Your task to perform on an android device: find snoozed emails in the gmail app Image 0: 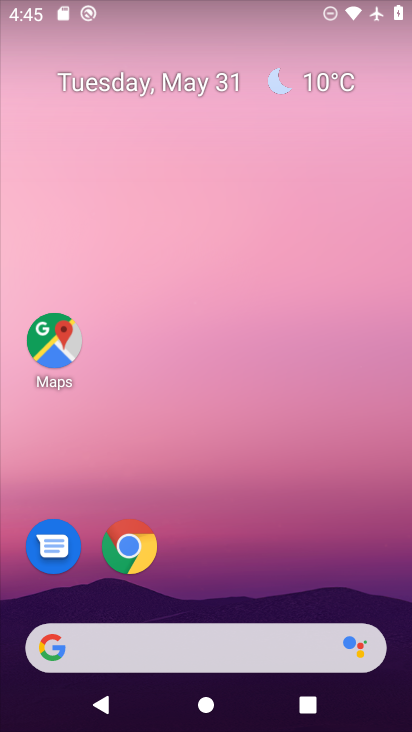
Step 0: press home button
Your task to perform on an android device: find snoozed emails in the gmail app Image 1: 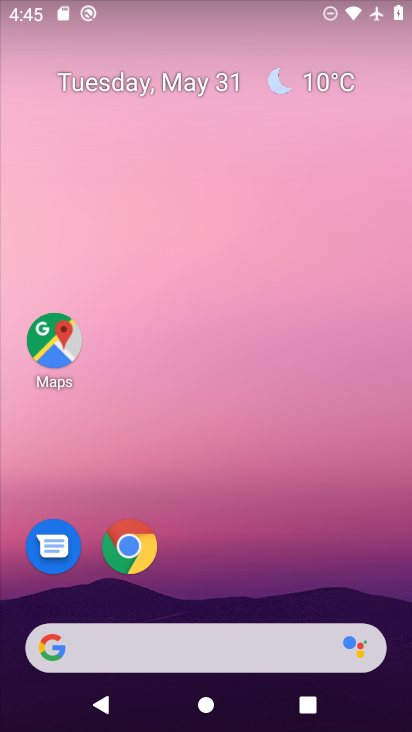
Step 1: drag from (262, 520) to (184, 0)
Your task to perform on an android device: find snoozed emails in the gmail app Image 2: 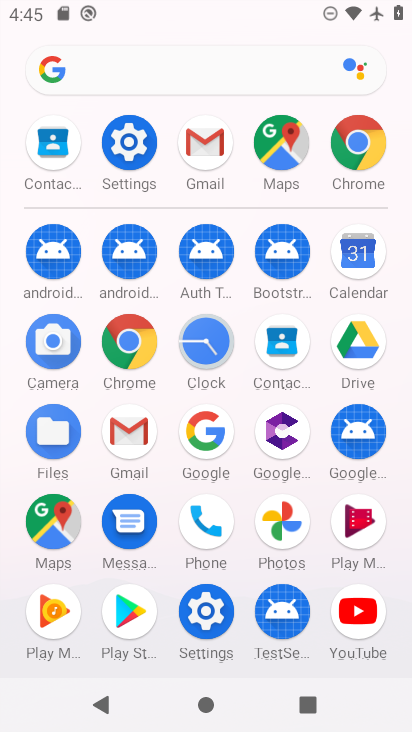
Step 2: click (208, 135)
Your task to perform on an android device: find snoozed emails in the gmail app Image 3: 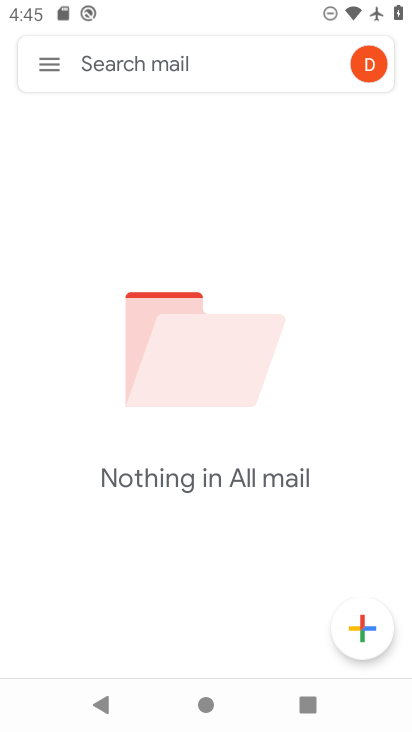
Step 3: click (38, 70)
Your task to perform on an android device: find snoozed emails in the gmail app Image 4: 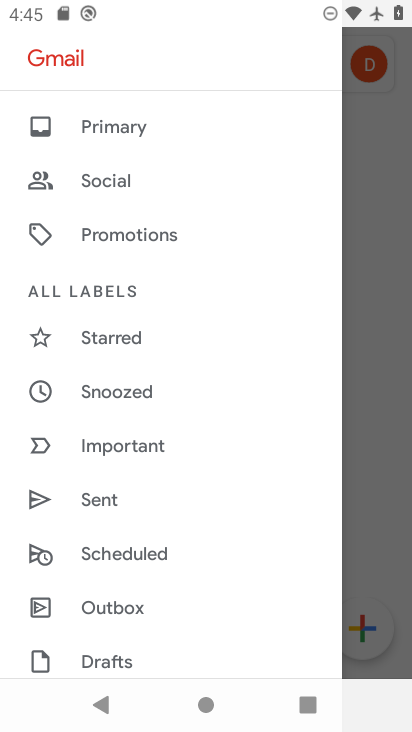
Step 4: click (132, 388)
Your task to perform on an android device: find snoozed emails in the gmail app Image 5: 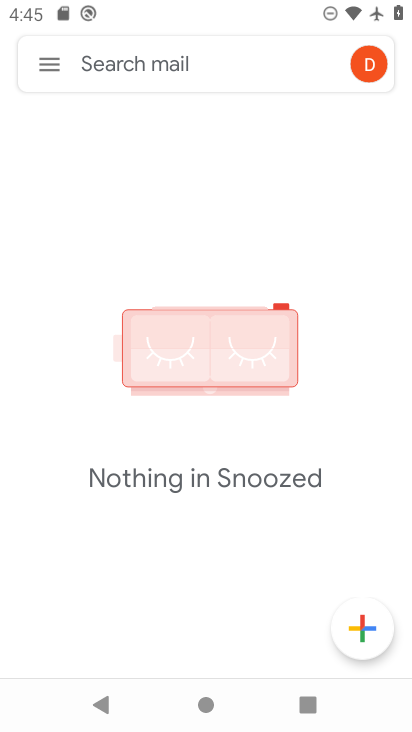
Step 5: task complete